Your task to perform on an android device: What is the recent news? Image 0: 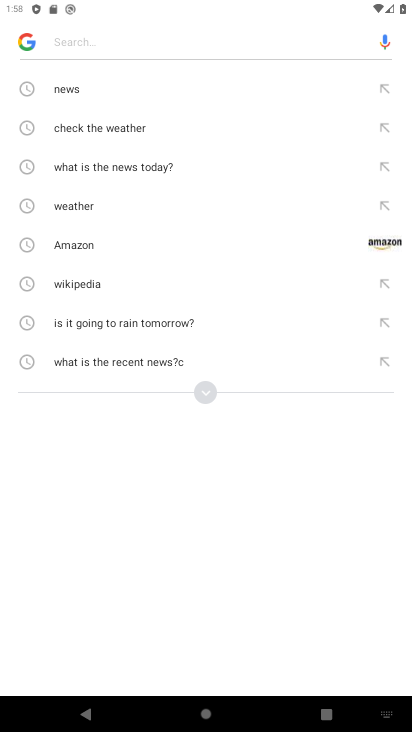
Step 0: type "what is the recent news"
Your task to perform on an android device: What is the recent news? Image 1: 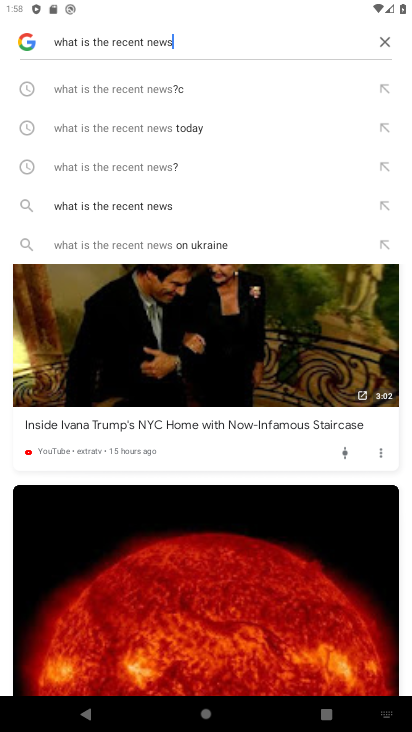
Step 1: click (122, 154)
Your task to perform on an android device: What is the recent news? Image 2: 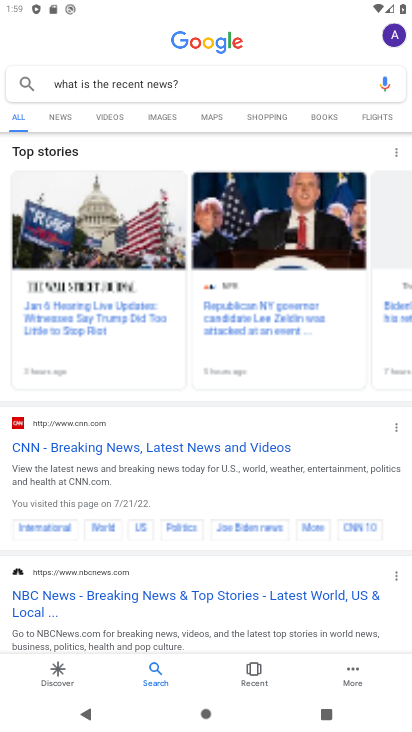
Step 2: task complete